Your task to perform on an android device: Show me popular videos on Youtube Image 0: 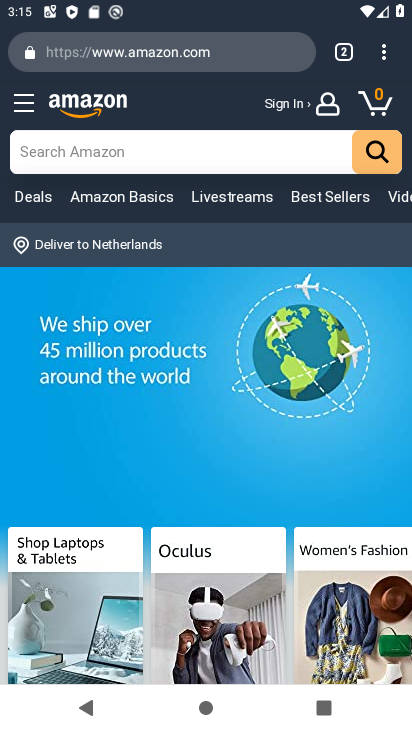
Step 0: press home button
Your task to perform on an android device: Show me popular videos on Youtube Image 1: 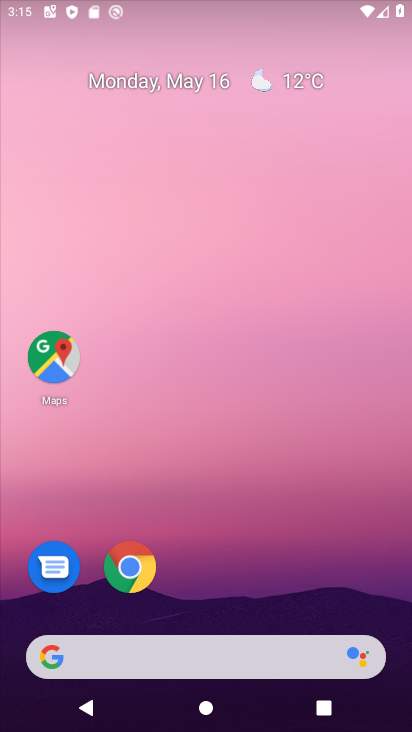
Step 1: drag from (336, 562) to (327, 38)
Your task to perform on an android device: Show me popular videos on Youtube Image 2: 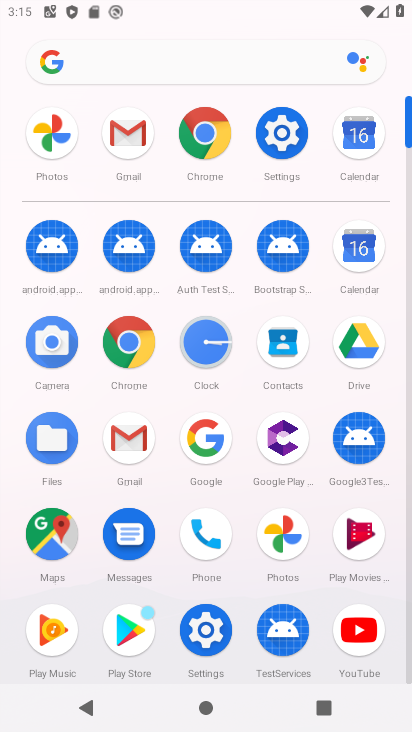
Step 2: click (363, 602)
Your task to perform on an android device: Show me popular videos on Youtube Image 3: 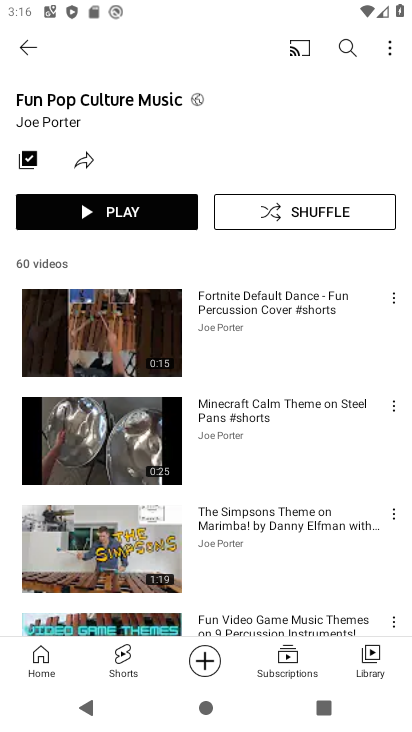
Step 3: click (27, 43)
Your task to perform on an android device: Show me popular videos on Youtube Image 4: 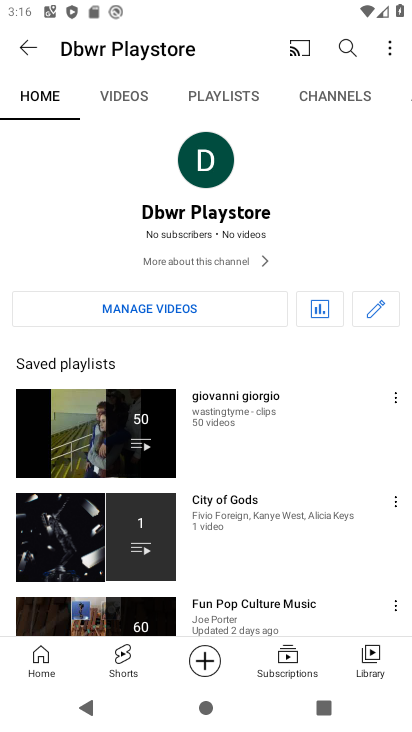
Step 4: click (27, 43)
Your task to perform on an android device: Show me popular videos on Youtube Image 5: 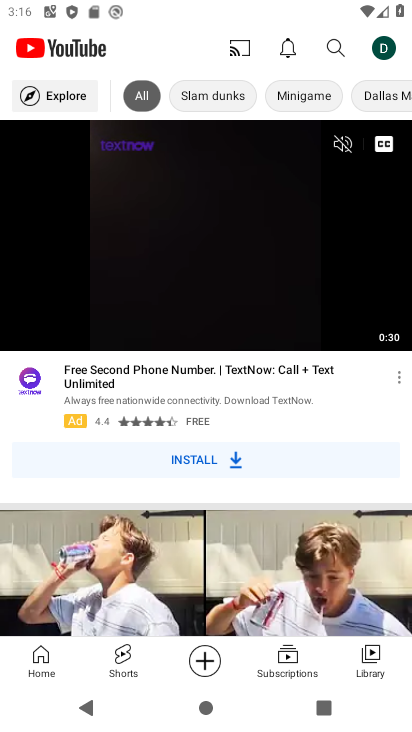
Step 5: click (24, 661)
Your task to perform on an android device: Show me popular videos on Youtube Image 6: 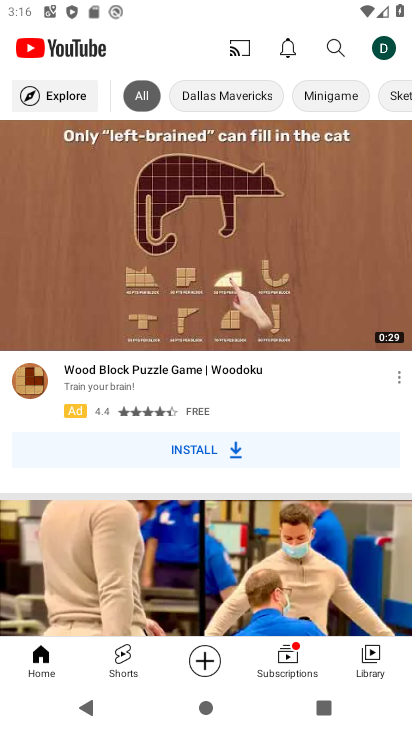
Step 6: click (74, 93)
Your task to perform on an android device: Show me popular videos on Youtube Image 7: 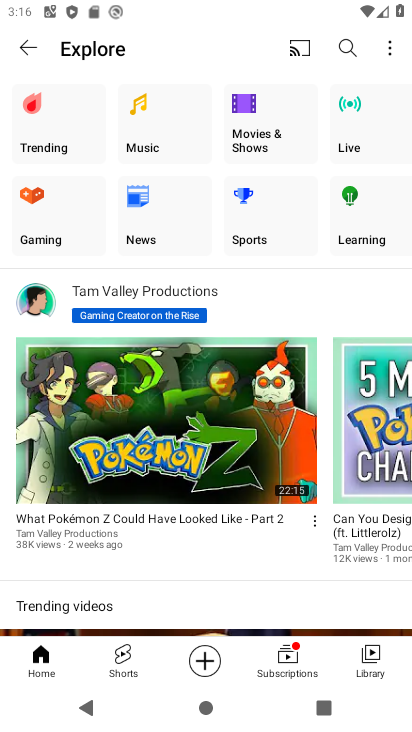
Step 7: drag from (315, 191) to (411, 219)
Your task to perform on an android device: Show me popular videos on Youtube Image 8: 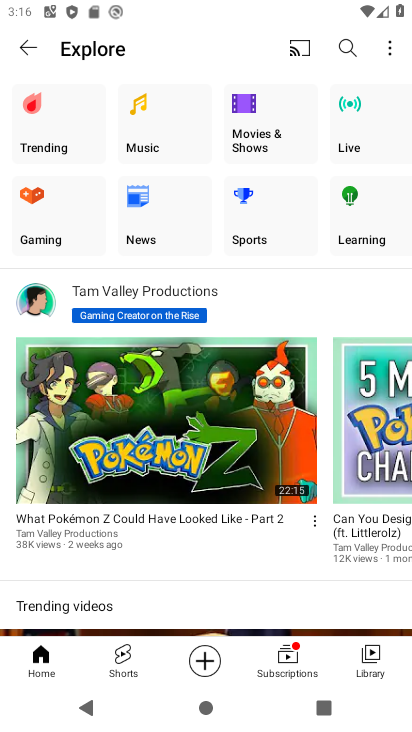
Step 8: click (53, 126)
Your task to perform on an android device: Show me popular videos on Youtube Image 9: 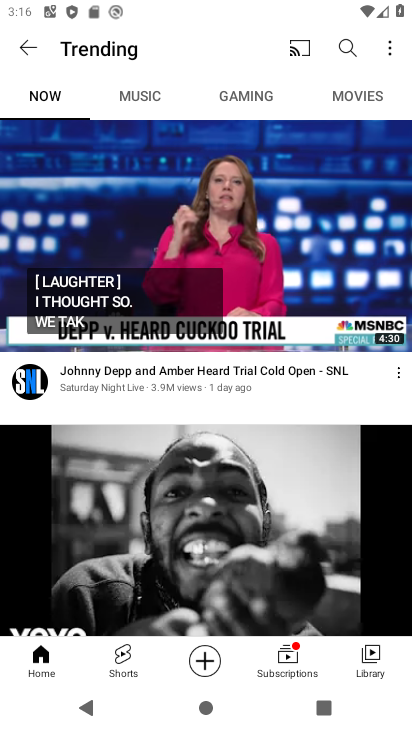
Step 9: task complete